Your task to perform on an android device: Open settings Image 0: 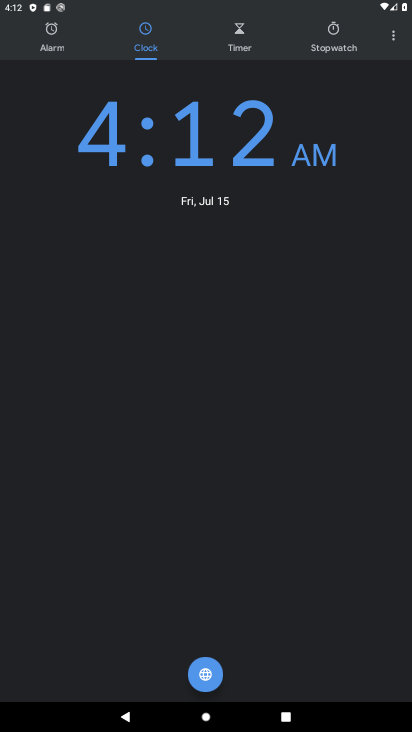
Step 0: press home button
Your task to perform on an android device: Open settings Image 1: 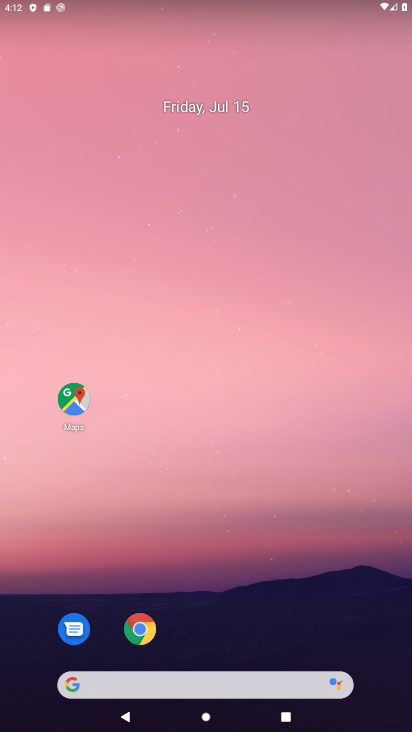
Step 1: drag from (199, 612) to (191, 93)
Your task to perform on an android device: Open settings Image 2: 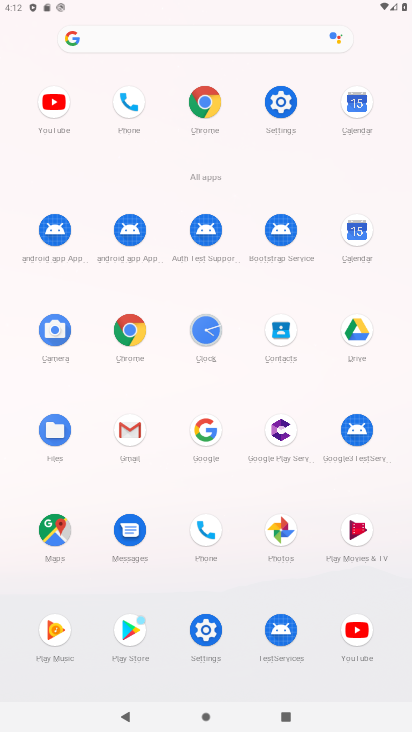
Step 2: click (287, 93)
Your task to perform on an android device: Open settings Image 3: 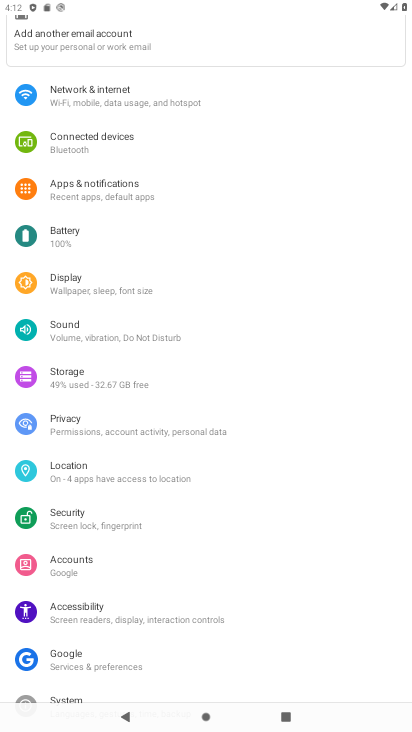
Step 3: task complete